Your task to perform on an android device: What's the weather today? Image 0: 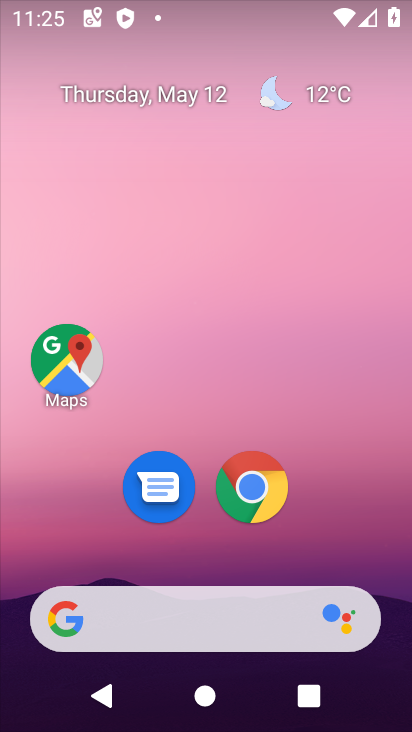
Step 0: click (320, 97)
Your task to perform on an android device: What's the weather today? Image 1: 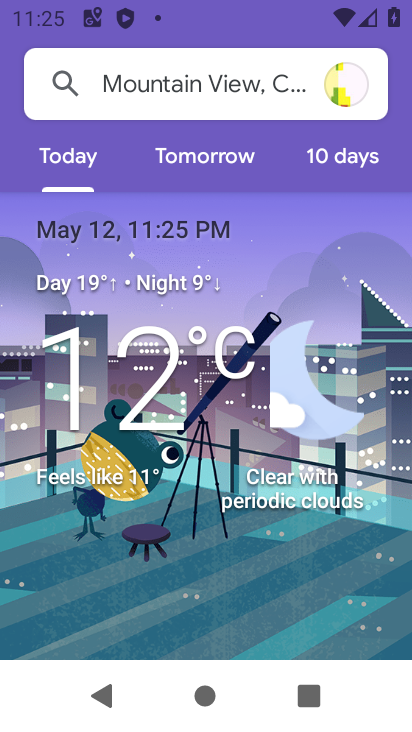
Step 1: task complete